Your task to perform on an android device: Open location settings Image 0: 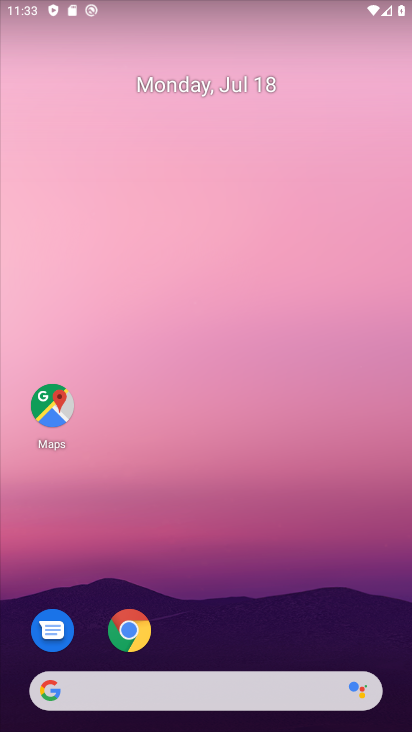
Step 0: click (54, 388)
Your task to perform on an android device: Open location settings Image 1: 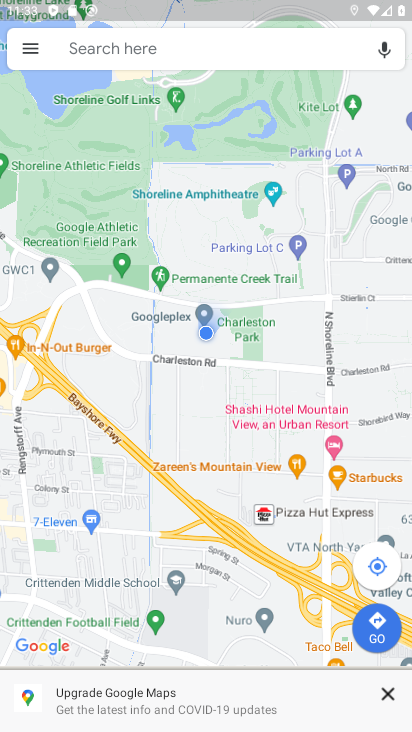
Step 1: click (43, 60)
Your task to perform on an android device: Open location settings Image 2: 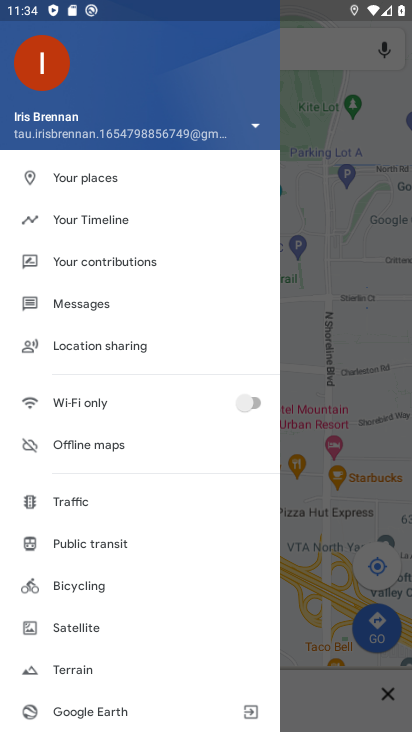
Step 2: drag from (119, 689) to (152, 211)
Your task to perform on an android device: Open location settings Image 3: 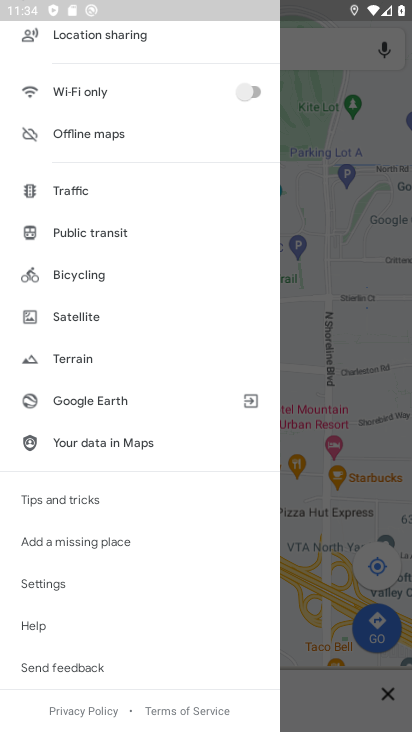
Step 3: click (61, 595)
Your task to perform on an android device: Open location settings Image 4: 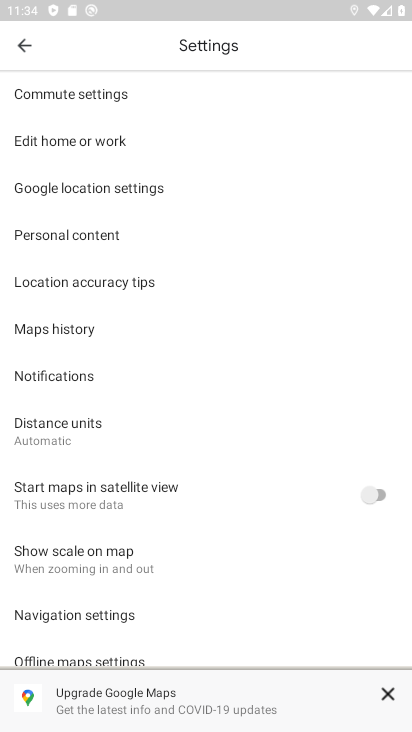
Step 4: task complete